Your task to perform on an android device: Open eBay Image 0: 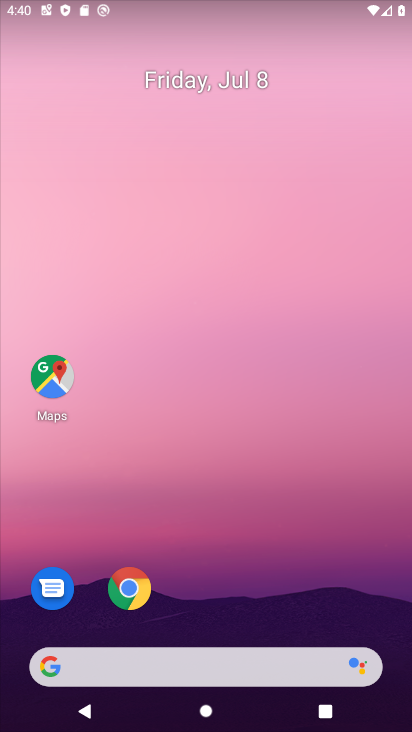
Step 0: click (125, 589)
Your task to perform on an android device: Open eBay Image 1: 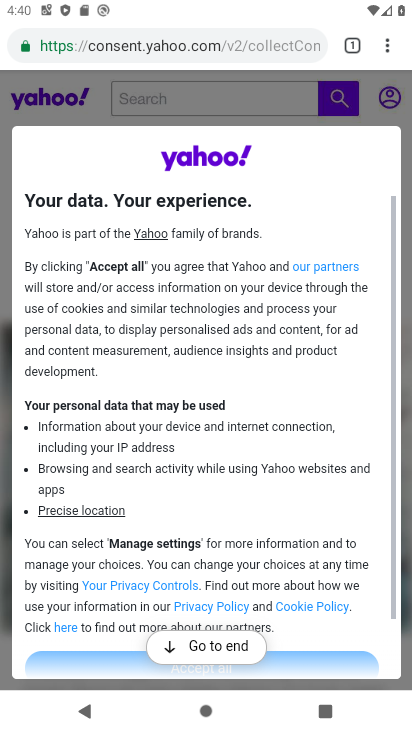
Step 1: click (220, 36)
Your task to perform on an android device: Open eBay Image 2: 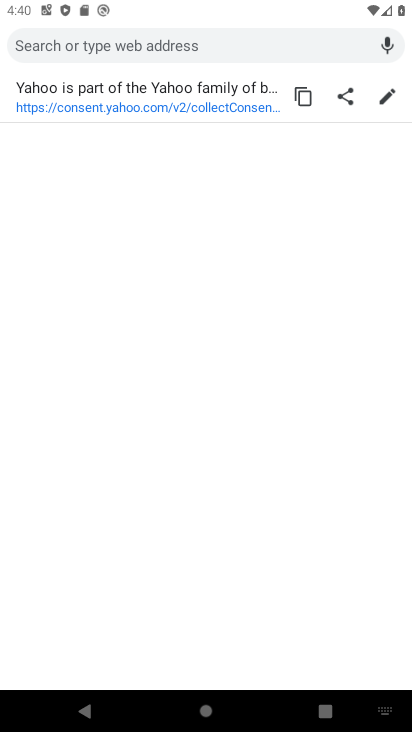
Step 2: type "eBay"
Your task to perform on an android device: Open eBay Image 3: 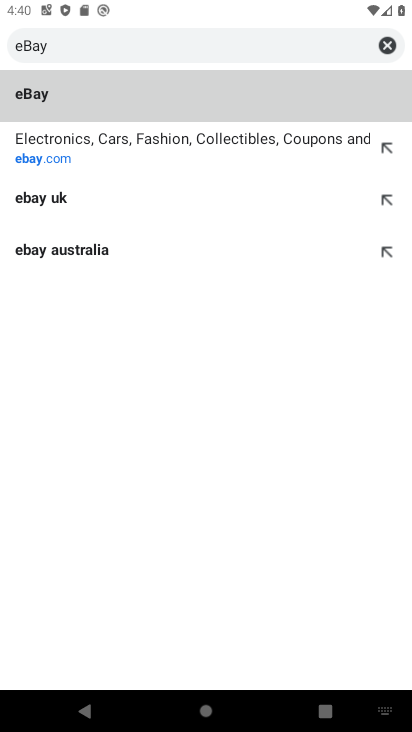
Step 3: click (133, 142)
Your task to perform on an android device: Open eBay Image 4: 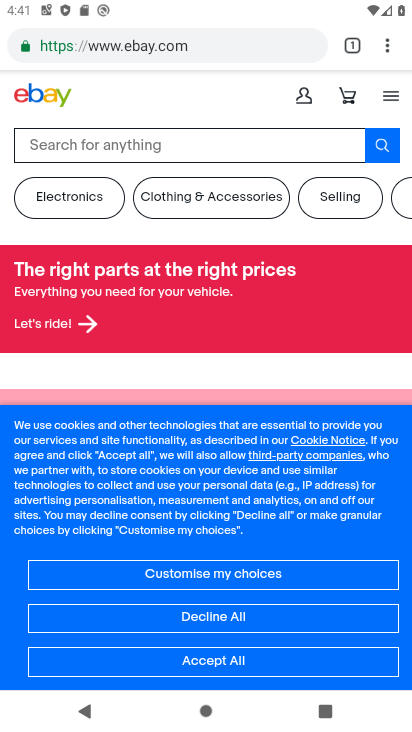
Step 4: task complete